Your task to perform on an android device: Open Yahoo.com Image 0: 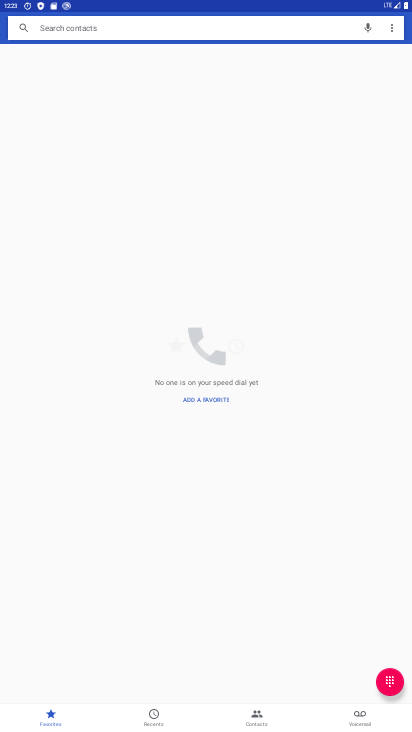
Step 0: drag from (178, 718) to (185, 116)
Your task to perform on an android device: Open Yahoo.com Image 1: 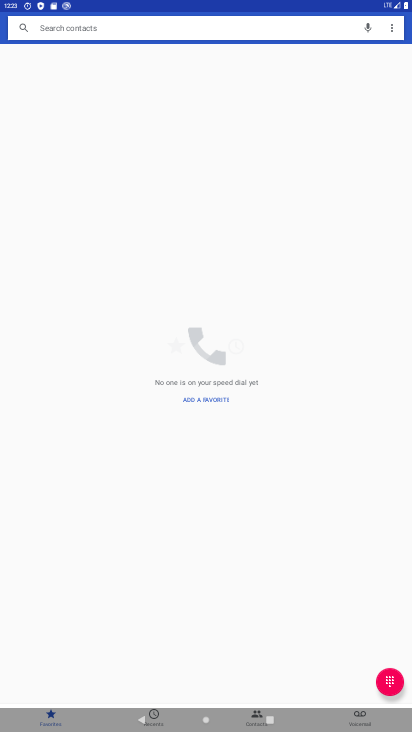
Step 1: click (213, 724)
Your task to perform on an android device: Open Yahoo.com Image 2: 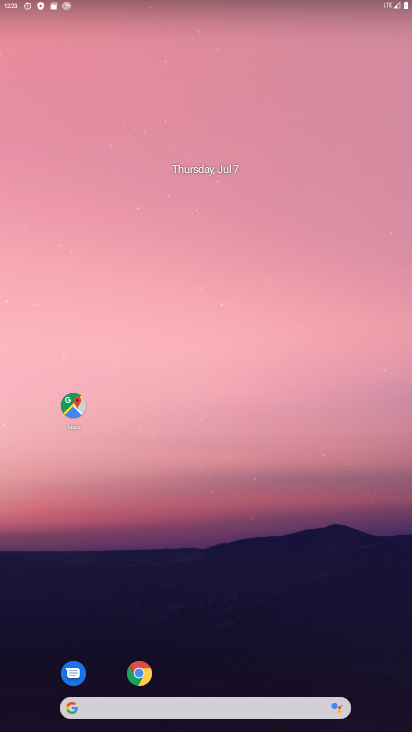
Step 2: click (145, 678)
Your task to perform on an android device: Open Yahoo.com Image 3: 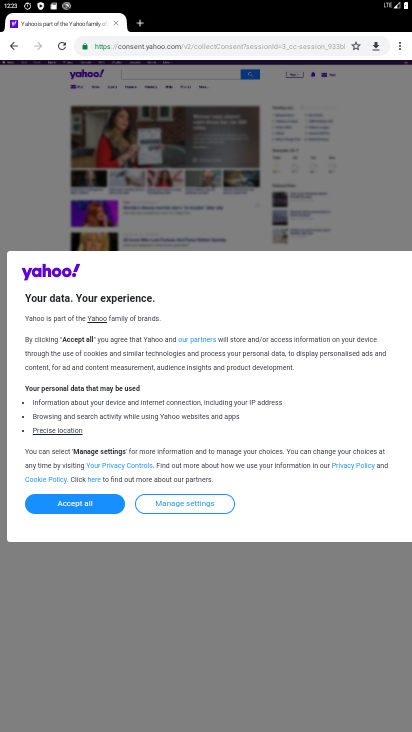
Step 3: click (65, 47)
Your task to perform on an android device: Open Yahoo.com Image 4: 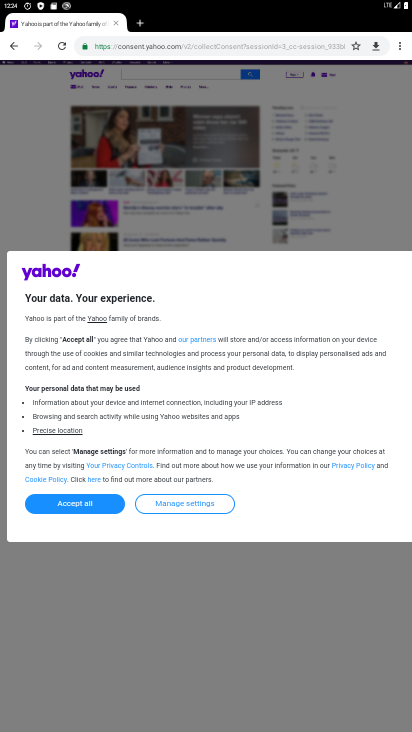
Step 4: task complete